Your task to perform on an android device: turn on improve location accuracy Image 0: 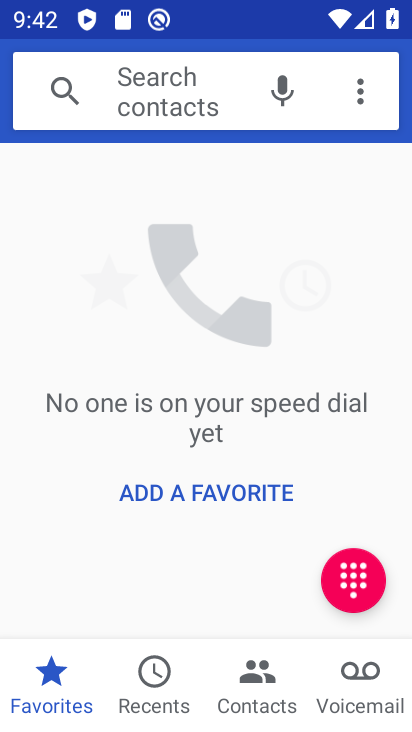
Step 0: press home button
Your task to perform on an android device: turn on improve location accuracy Image 1: 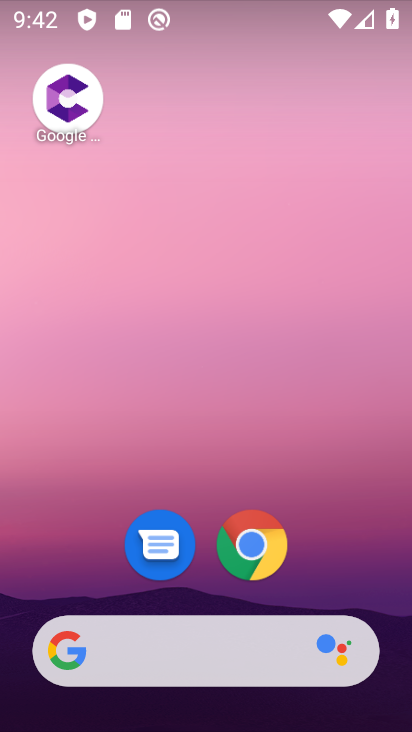
Step 1: drag from (324, 504) to (264, 47)
Your task to perform on an android device: turn on improve location accuracy Image 2: 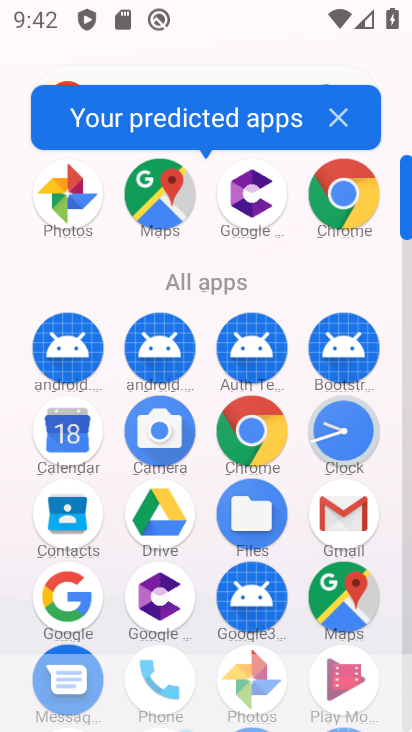
Step 2: drag from (213, 317) to (199, 188)
Your task to perform on an android device: turn on improve location accuracy Image 3: 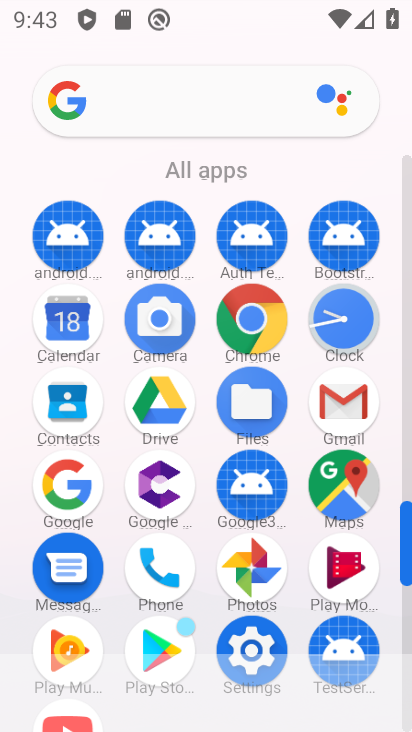
Step 3: click (246, 628)
Your task to perform on an android device: turn on improve location accuracy Image 4: 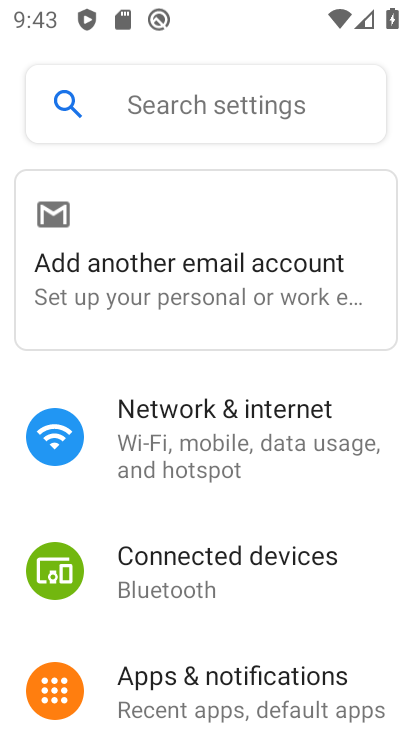
Step 4: drag from (245, 599) to (230, 304)
Your task to perform on an android device: turn on improve location accuracy Image 5: 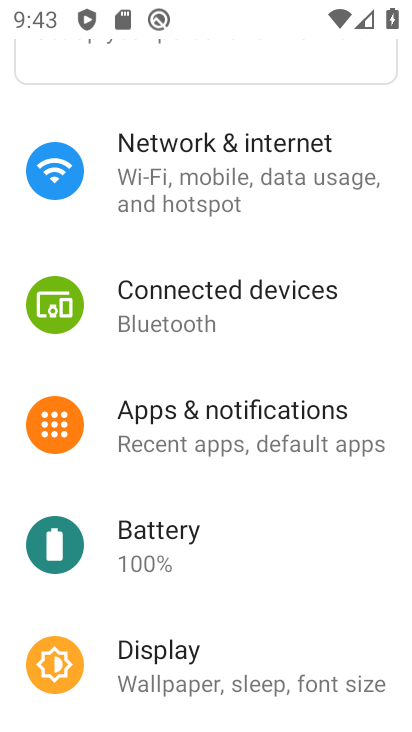
Step 5: drag from (253, 570) to (239, 150)
Your task to perform on an android device: turn on improve location accuracy Image 6: 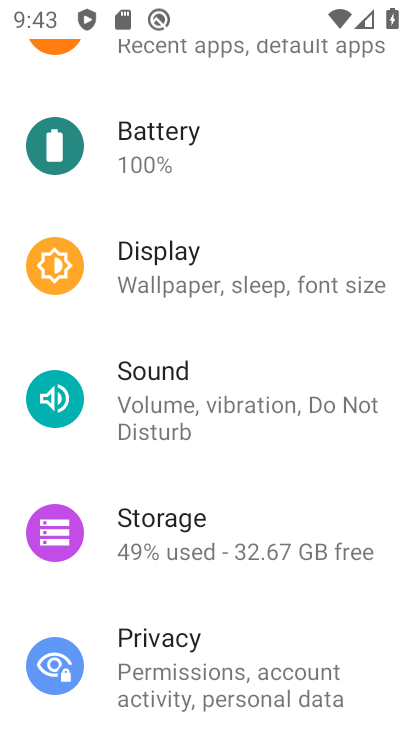
Step 6: drag from (249, 536) to (230, 160)
Your task to perform on an android device: turn on improve location accuracy Image 7: 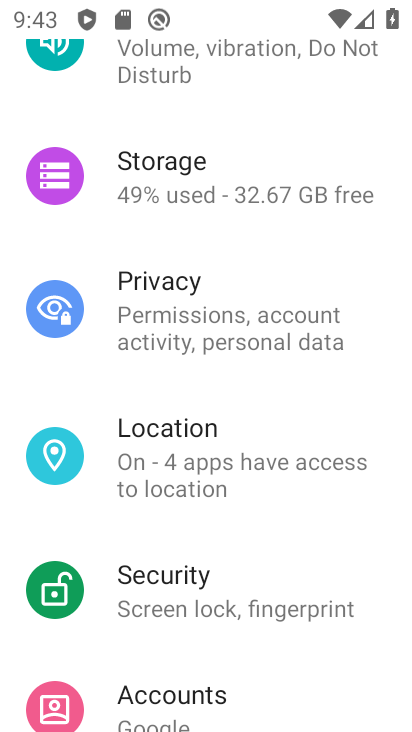
Step 7: click (236, 462)
Your task to perform on an android device: turn on improve location accuracy Image 8: 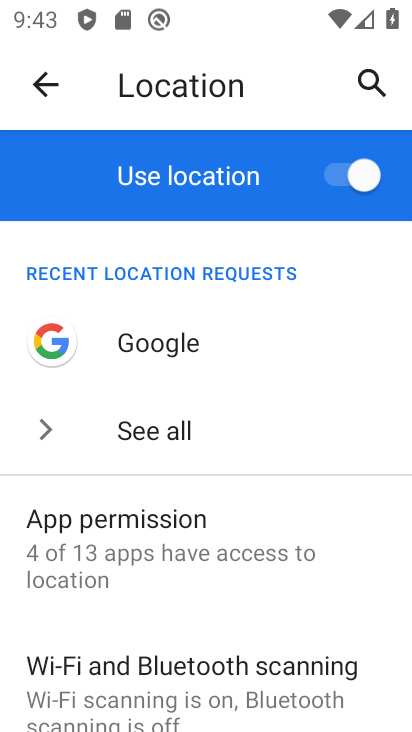
Step 8: drag from (236, 593) to (220, 235)
Your task to perform on an android device: turn on improve location accuracy Image 9: 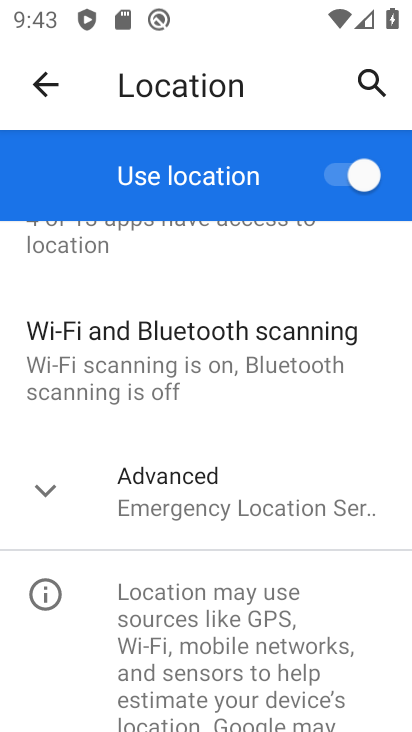
Step 9: click (44, 481)
Your task to perform on an android device: turn on improve location accuracy Image 10: 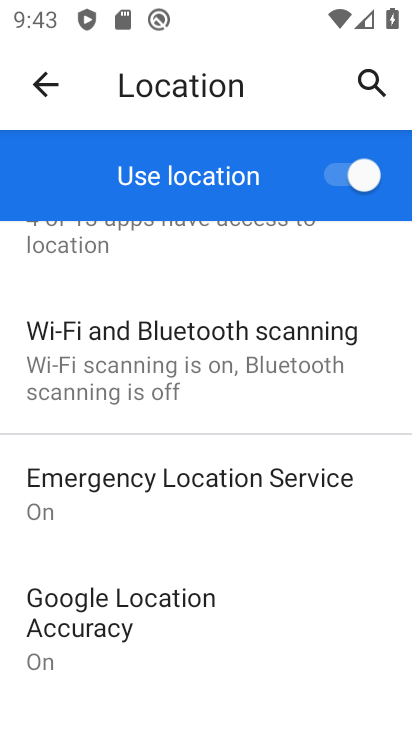
Step 10: task complete